Your task to perform on an android device: Open Google Chrome and click the shortcut for Amazon.com Image 0: 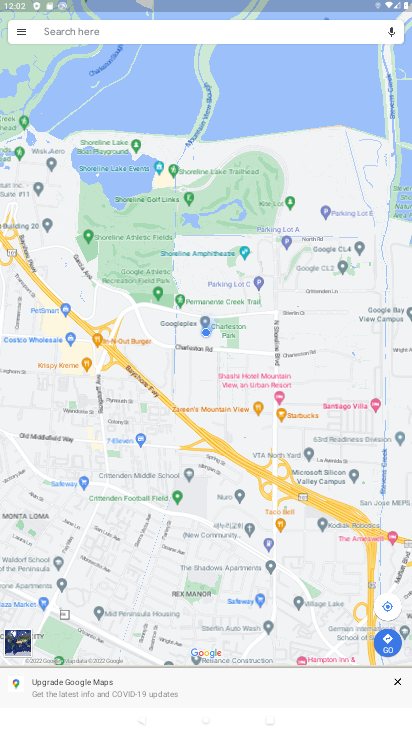
Step 0: task complete